Your task to perform on an android device: change notification settings in the gmail app Image 0: 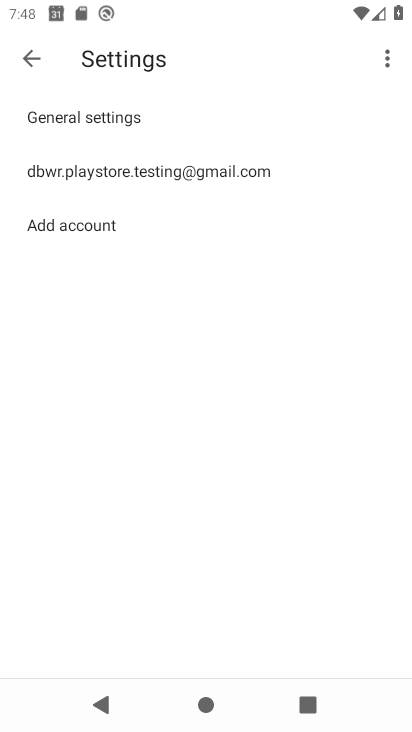
Step 0: press home button
Your task to perform on an android device: change notification settings in the gmail app Image 1: 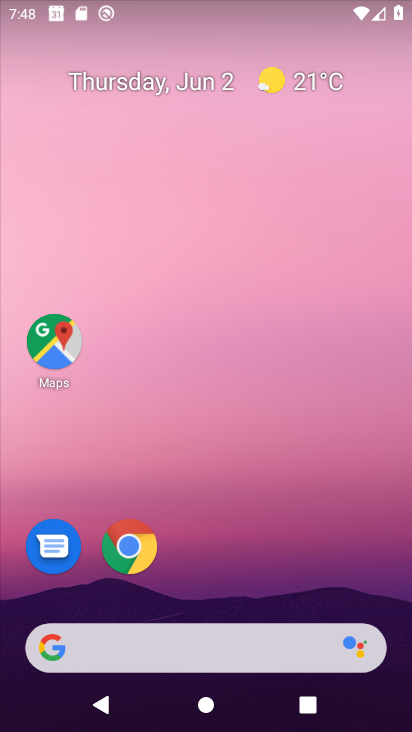
Step 1: drag from (340, 533) to (348, 177)
Your task to perform on an android device: change notification settings in the gmail app Image 2: 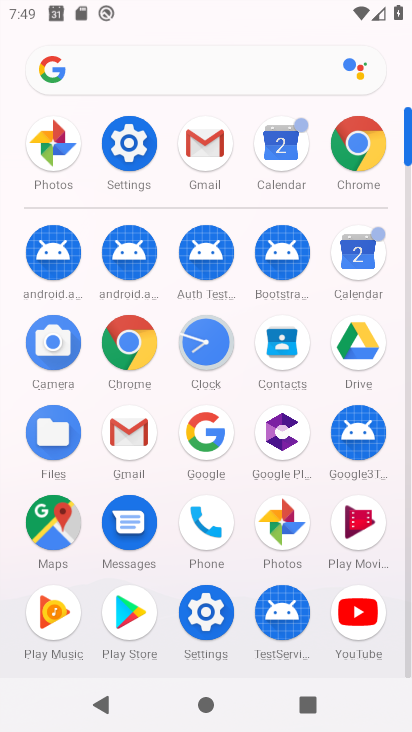
Step 2: click (205, 617)
Your task to perform on an android device: change notification settings in the gmail app Image 3: 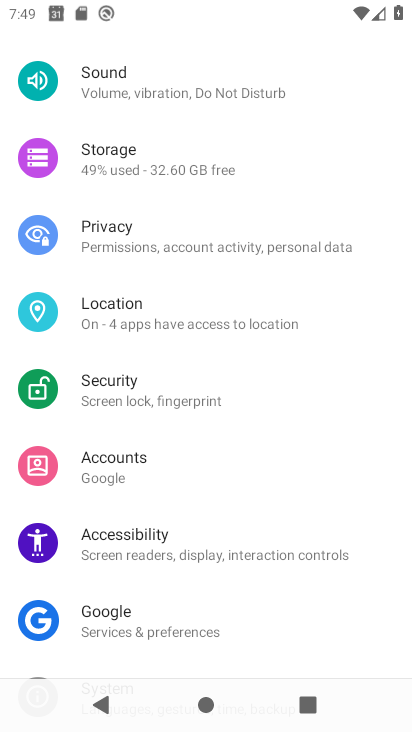
Step 3: drag from (286, 136) to (257, 508)
Your task to perform on an android device: change notification settings in the gmail app Image 4: 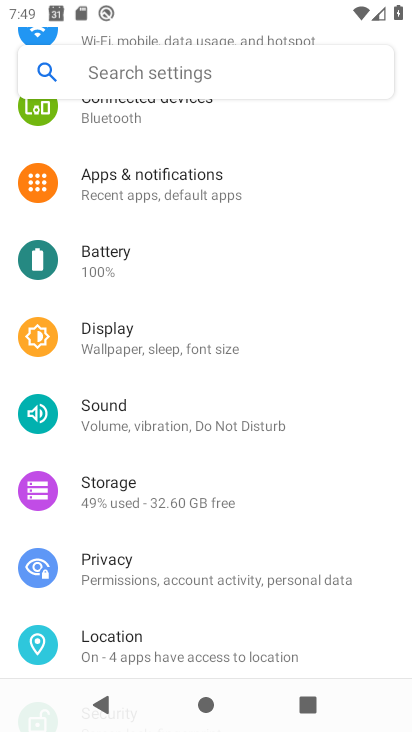
Step 4: click (208, 185)
Your task to perform on an android device: change notification settings in the gmail app Image 5: 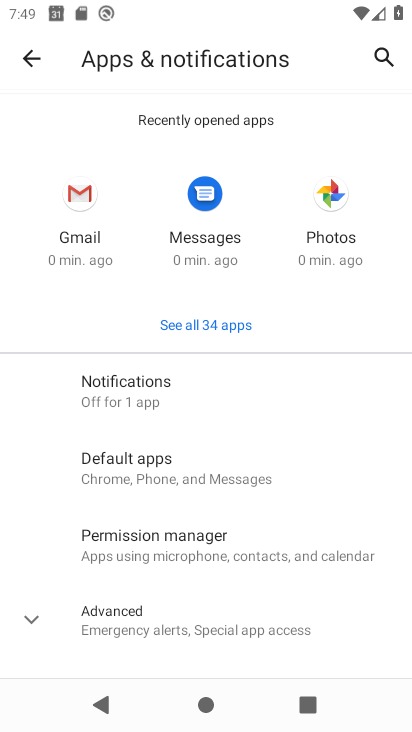
Step 5: click (127, 411)
Your task to perform on an android device: change notification settings in the gmail app Image 6: 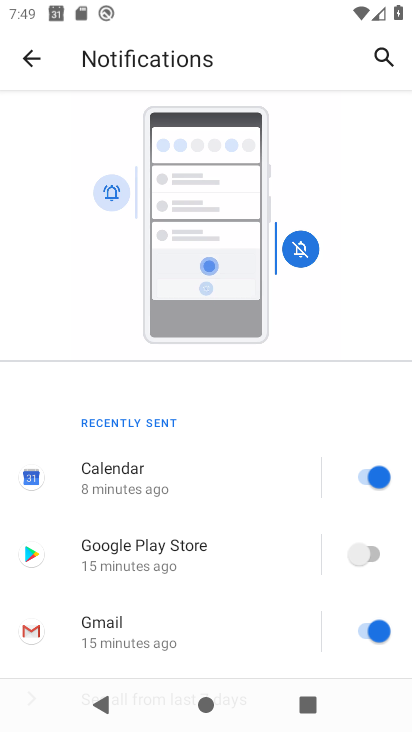
Step 6: drag from (264, 616) to (242, 269)
Your task to perform on an android device: change notification settings in the gmail app Image 7: 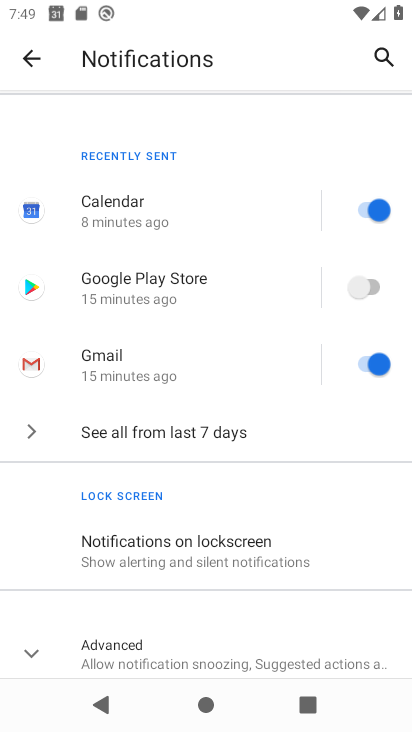
Step 7: drag from (166, 644) to (191, 353)
Your task to perform on an android device: change notification settings in the gmail app Image 8: 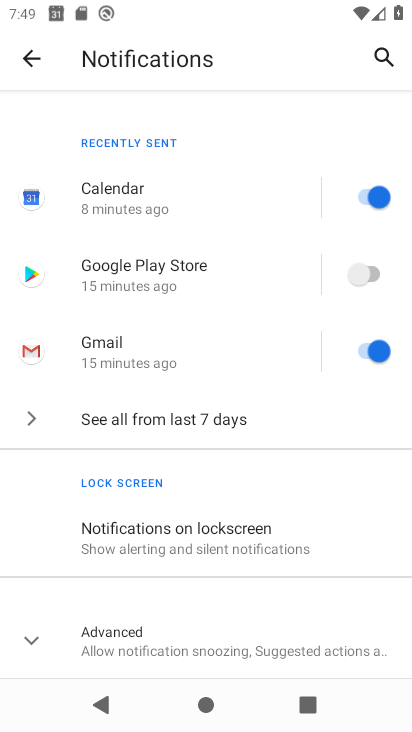
Step 8: click (368, 349)
Your task to perform on an android device: change notification settings in the gmail app Image 9: 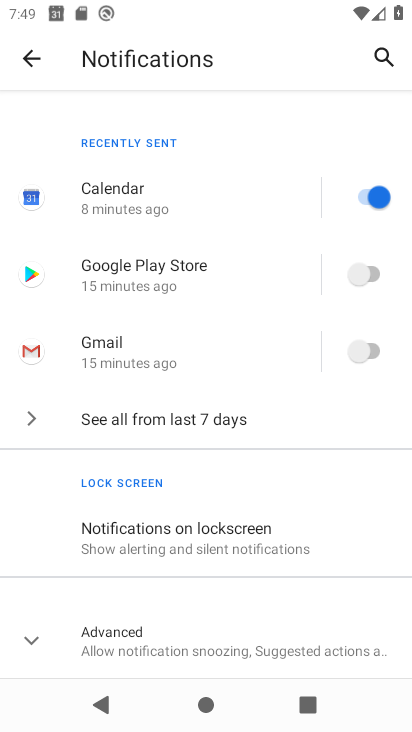
Step 9: task complete